Your task to perform on an android device: Open network settings Image 0: 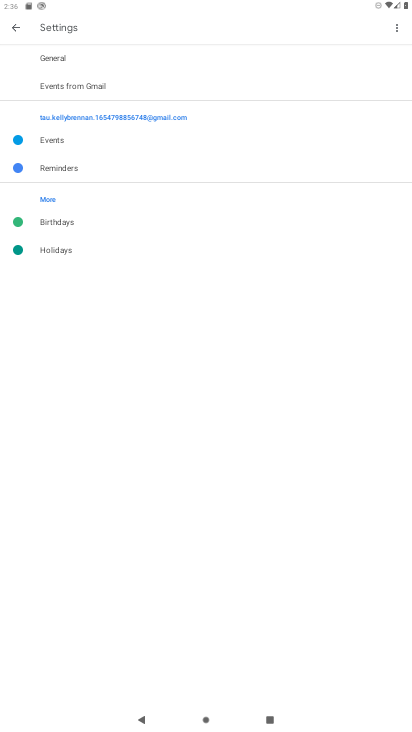
Step 0: drag from (168, 2) to (231, 681)
Your task to perform on an android device: Open network settings Image 1: 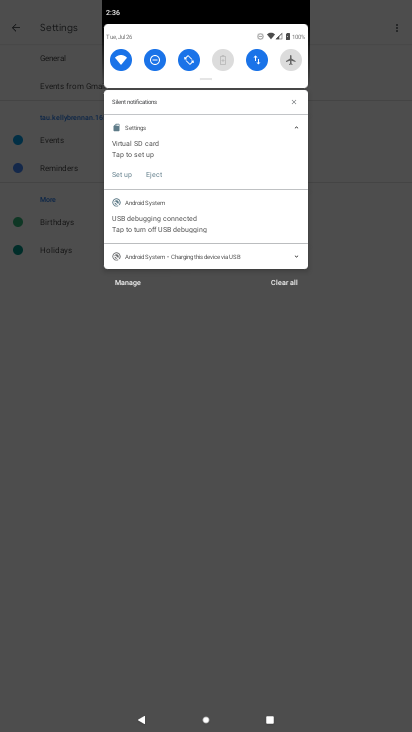
Step 1: click (249, 62)
Your task to perform on an android device: Open network settings Image 2: 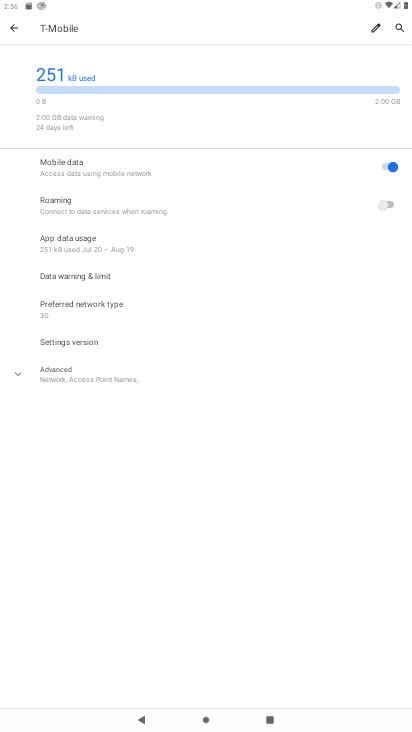
Step 2: task complete